Your task to perform on an android device: Open calendar and show me the fourth week of next month Image 0: 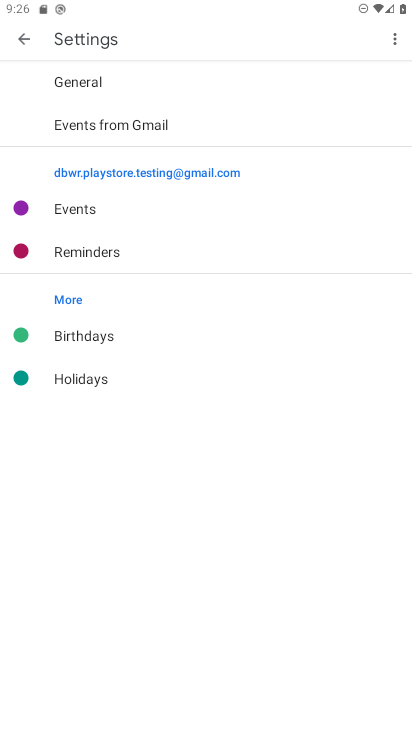
Step 0: press home button
Your task to perform on an android device: Open calendar and show me the fourth week of next month Image 1: 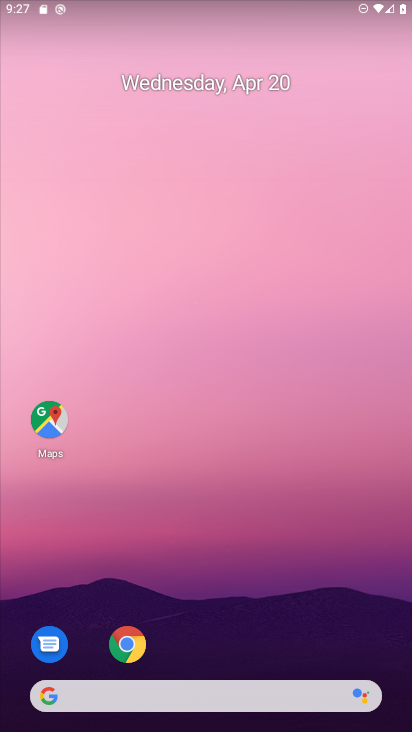
Step 1: drag from (315, 627) to (279, 67)
Your task to perform on an android device: Open calendar and show me the fourth week of next month Image 2: 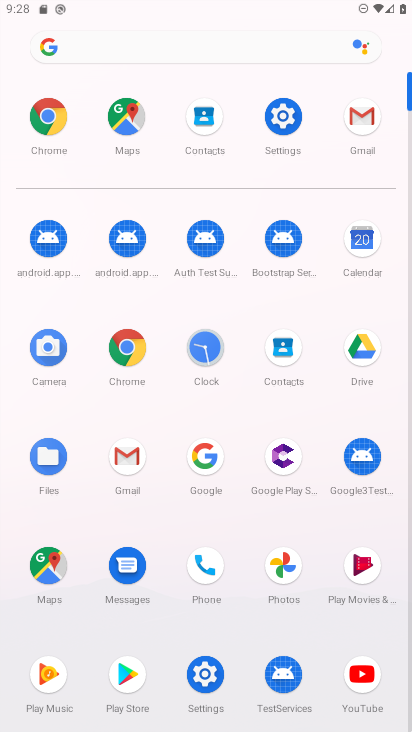
Step 2: click (361, 241)
Your task to perform on an android device: Open calendar and show me the fourth week of next month Image 3: 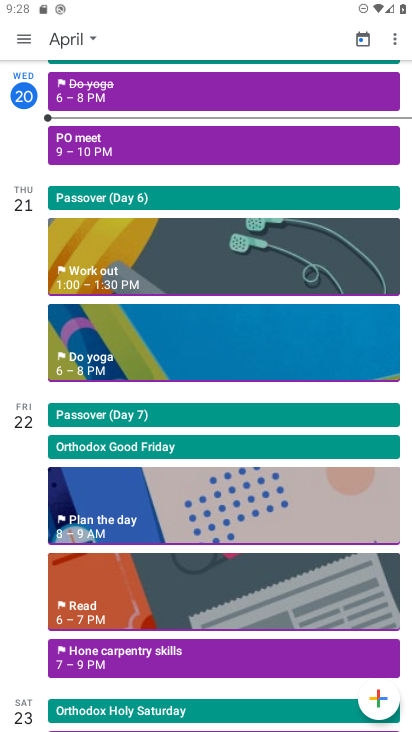
Step 3: click (60, 38)
Your task to perform on an android device: Open calendar and show me the fourth week of next month Image 4: 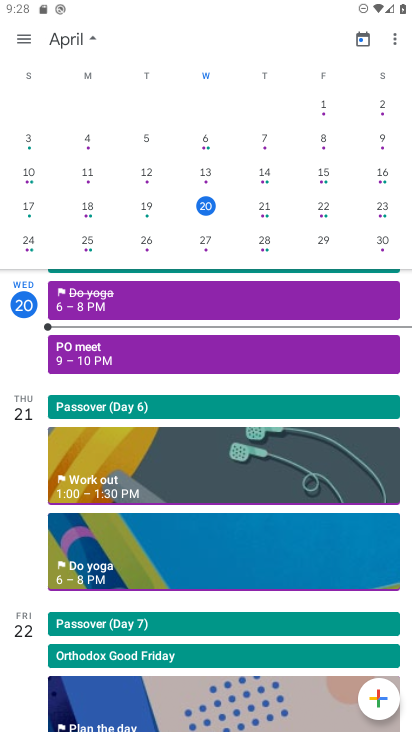
Step 4: drag from (354, 184) to (1, 174)
Your task to perform on an android device: Open calendar and show me the fourth week of next month Image 5: 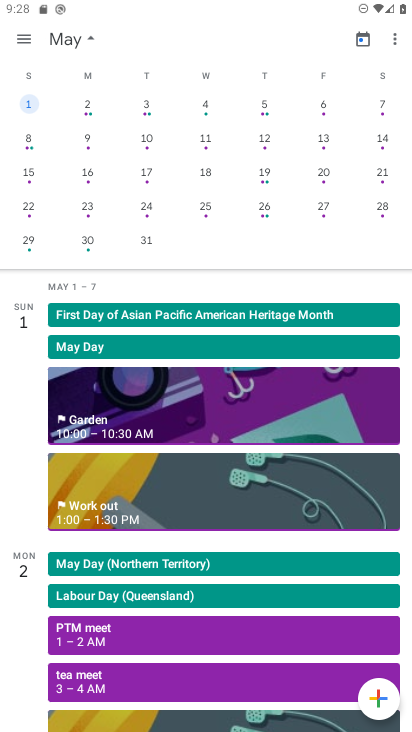
Step 5: click (206, 208)
Your task to perform on an android device: Open calendar and show me the fourth week of next month Image 6: 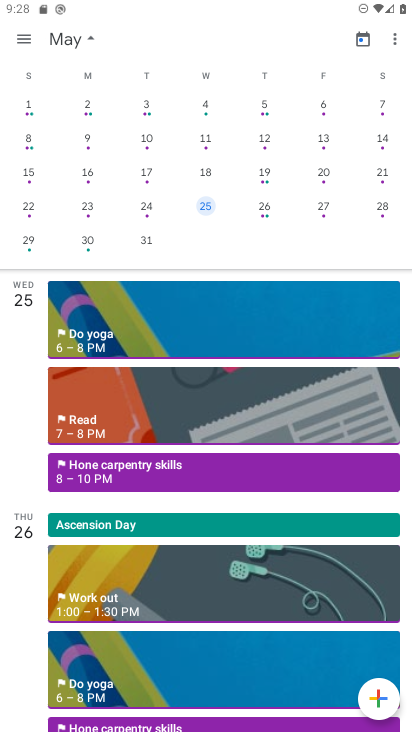
Step 6: task complete